Your task to perform on an android device: Search for pizza restaurants on Maps Image 0: 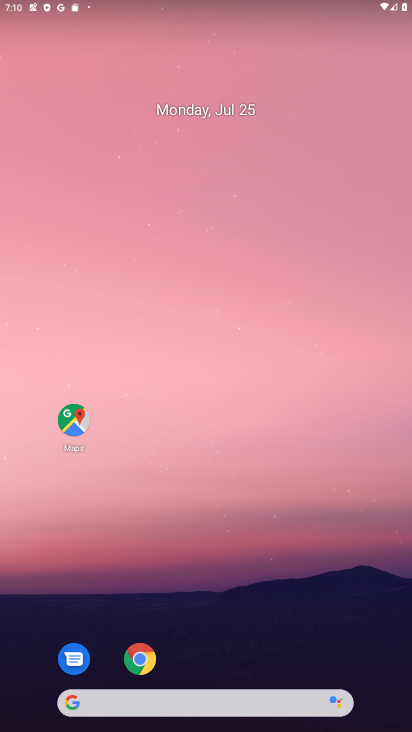
Step 0: click (82, 423)
Your task to perform on an android device: Search for pizza restaurants on Maps Image 1: 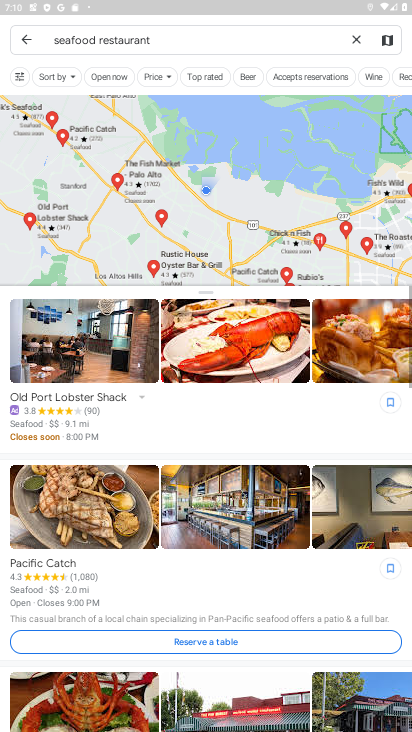
Step 1: click (365, 39)
Your task to perform on an android device: Search for pizza restaurants on Maps Image 2: 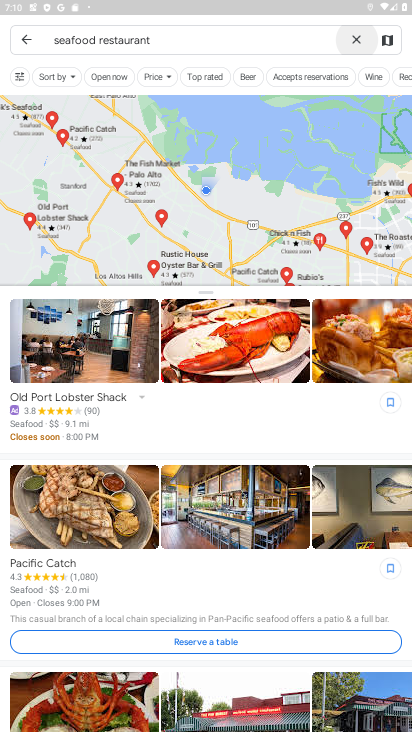
Step 2: click (357, 39)
Your task to perform on an android device: Search for pizza restaurants on Maps Image 3: 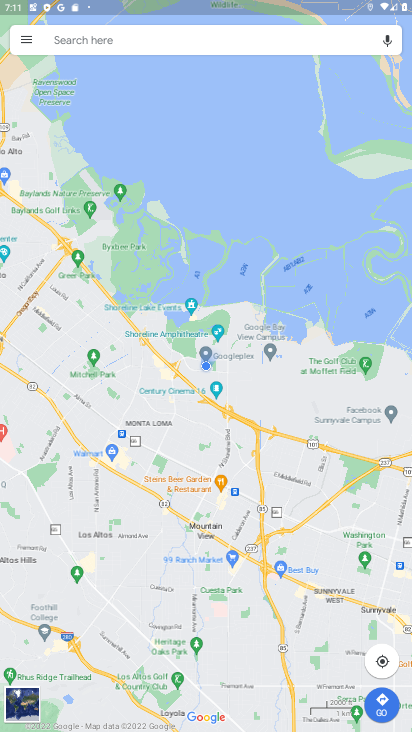
Step 3: click (278, 39)
Your task to perform on an android device: Search for pizza restaurants on Maps Image 4: 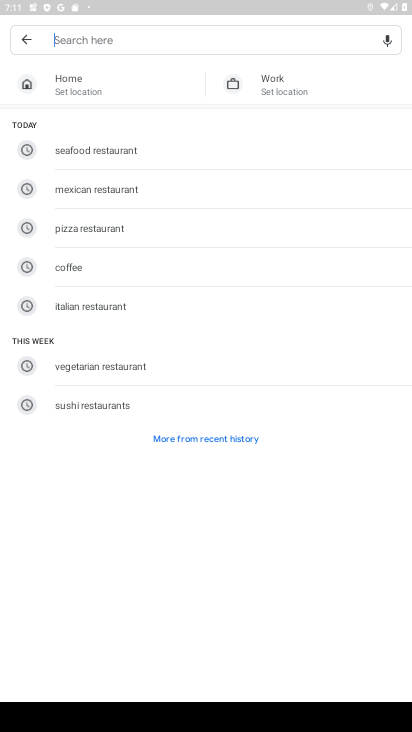
Step 4: click (99, 225)
Your task to perform on an android device: Search for pizza restaurants on Maps Image 5: 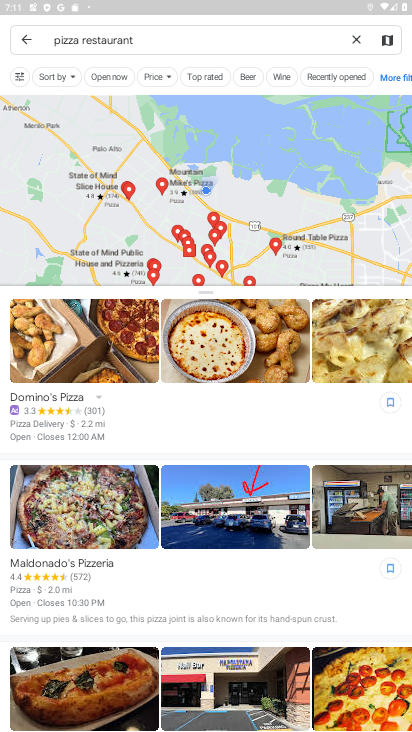
Step 5: task complete